Your task to perform on an android device: What is the recent news? Image 0: 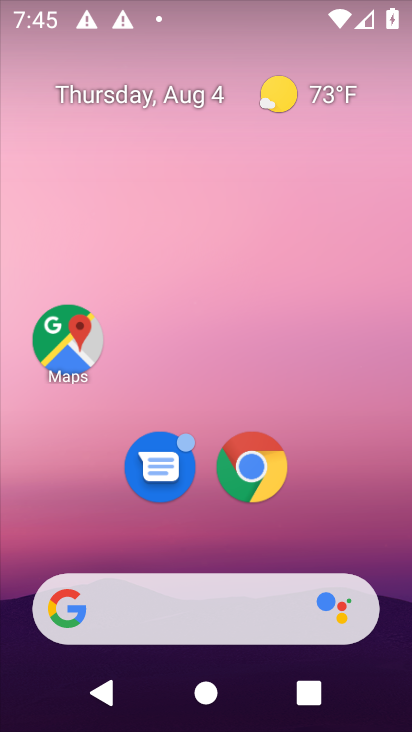
Step 0: drag from (364, 526) to (373, 16)
Your task to perform on an android device: What is the recent news? Image 1: 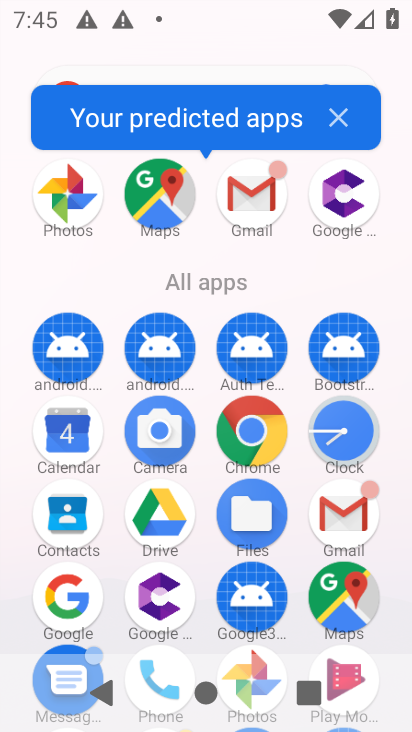
Step 1: click (256, 433)
Your task to perform on an android device: What is the recent news? Image 2: 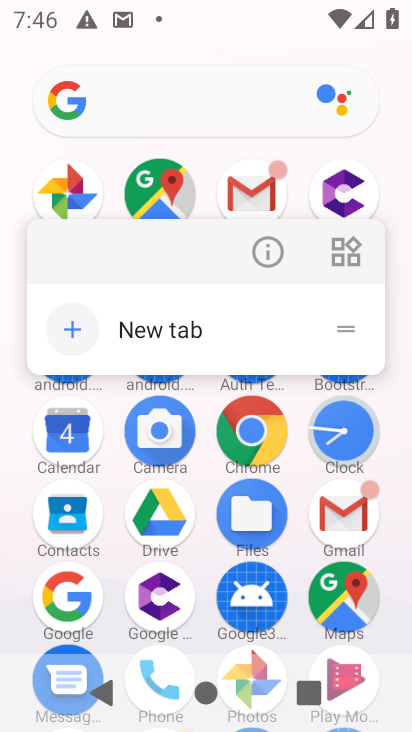
Step 2: click (260, 417)
Your task to perform on an android device: What is the recent news? Image 3: 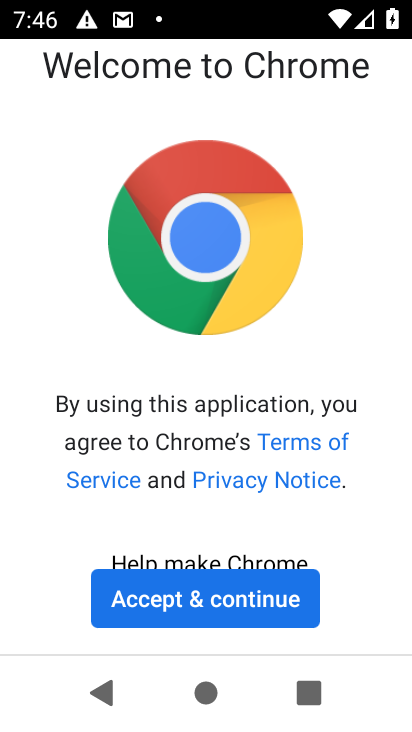
Step 3: click (158, 607)
Your task to perform on an android device: What is the recent news? Image 4: 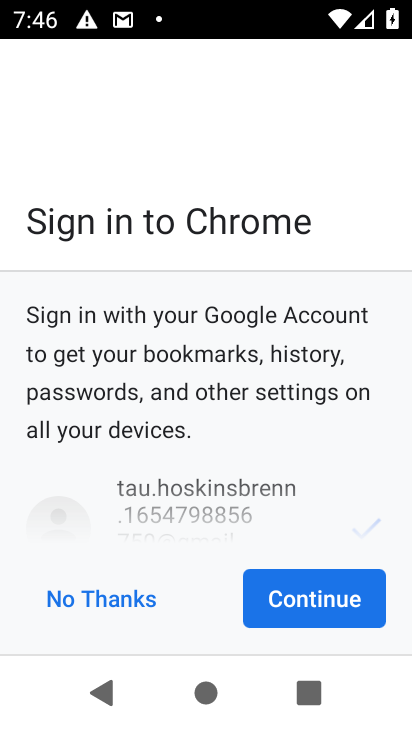
Step 4: click (308, 591)
Your task to perform on an android device: What is the recent news? Image 5: 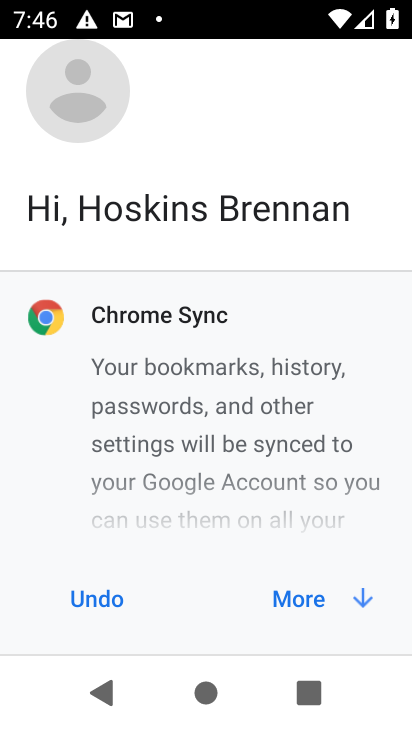
Step 5: click (305, 595)
Your task to perform on an android device: What is the recent news? Image 6: 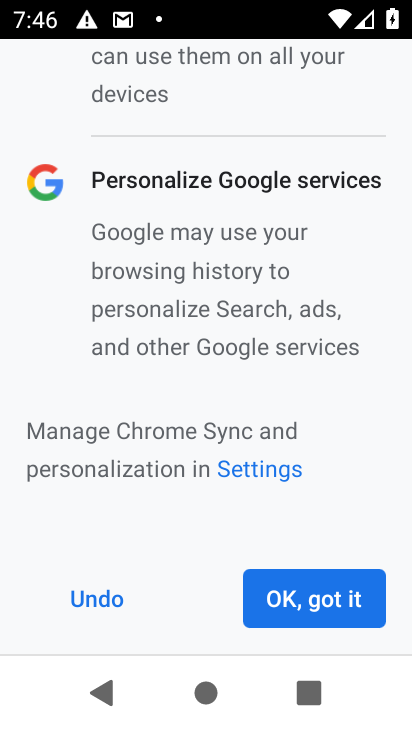
Step 6: click (305, 595)
Your task to perform on an android device: What is the recent news? Image 7: 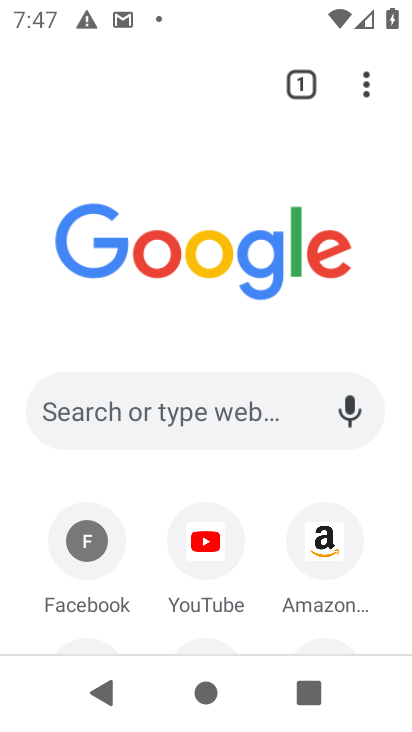
Step 7: click (128, 395)
Your task to perform on an android device: What is the recent news? Image 8: 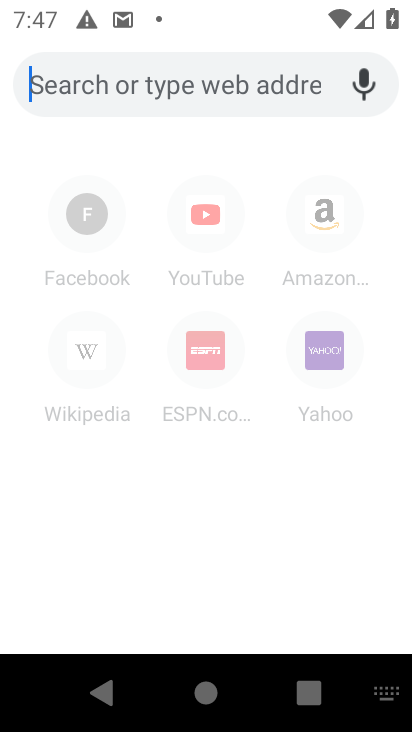
Step 8: type "What is the recent news?"
Your task to perform on an android device: What is the recent news? Image 9: 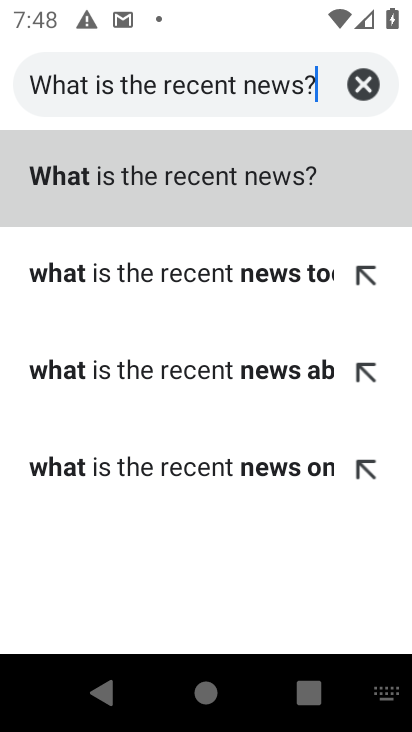
Step 9: click (233, 181)
Your task to perform on an android device: What is the recent news? Image 10: 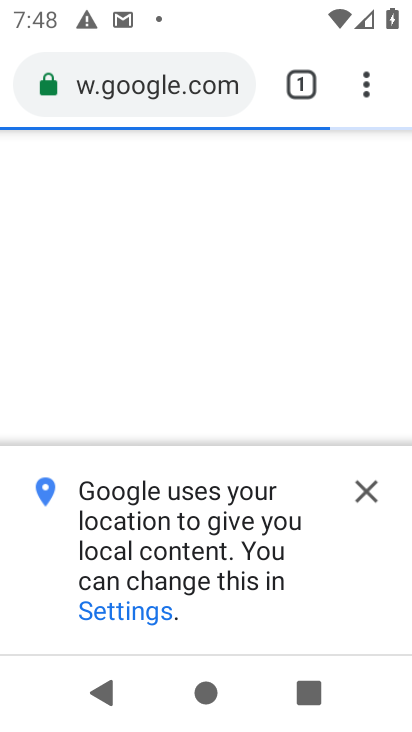
Step 10: click (359, 489)
Your task to perform on an android device: What is the recent news? Image 11: 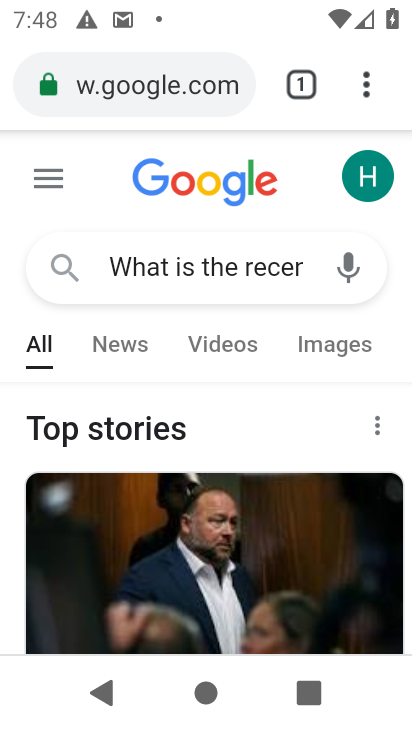
Step 11: drag from (192, 389) to (222, 84)
Your task to perform on an android device: What is the recent news? Image 12: 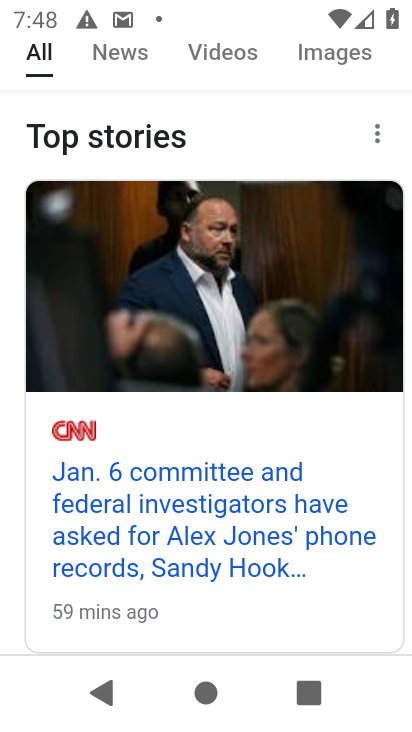
Step 12: click (124, 53)
Your task to perform on an android device: What is the recent news? Image 13: 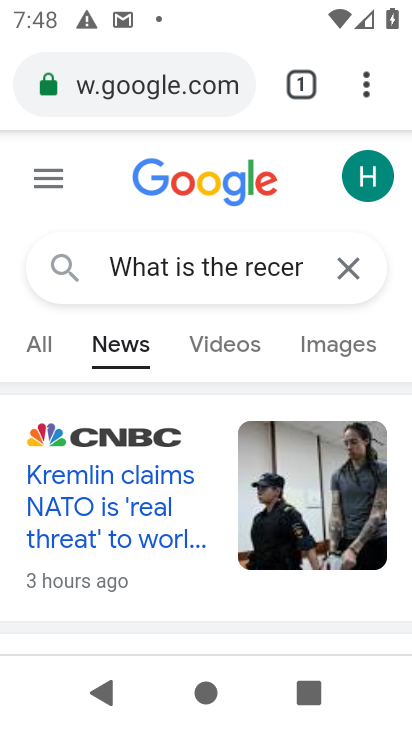
Step 13: task complete